Your task to perform on an android device: turn pop-ups off in chrome Image 0: 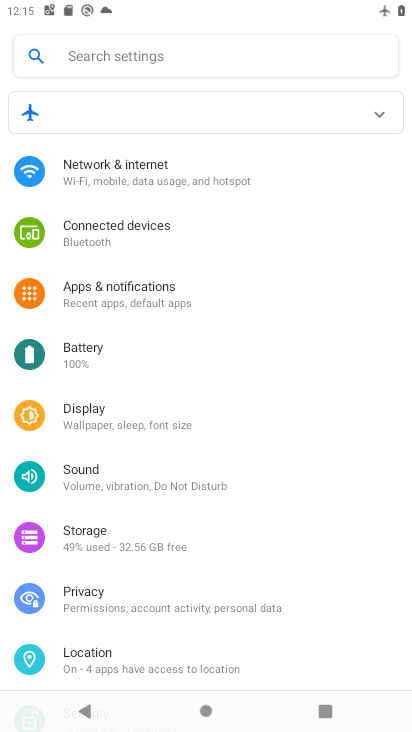
Step 0: press home button
Your task to perform on an android device: turn pop-ups off in chrome Image 1: 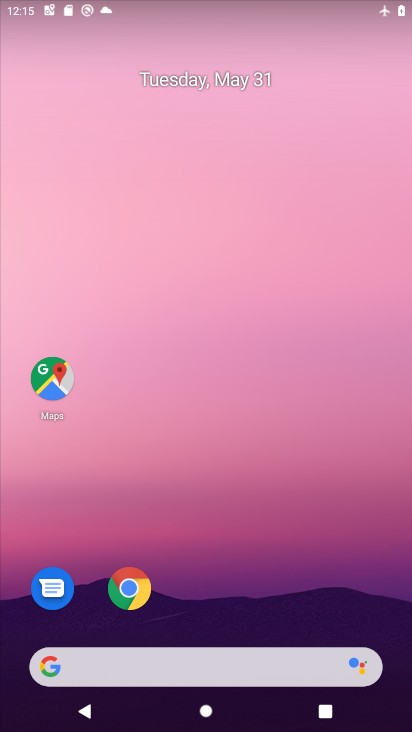
Step 1: drag from (213, 487) to (215, 114)
Your task to perform on an android device: turn pop-ups off in chrome Image 2: 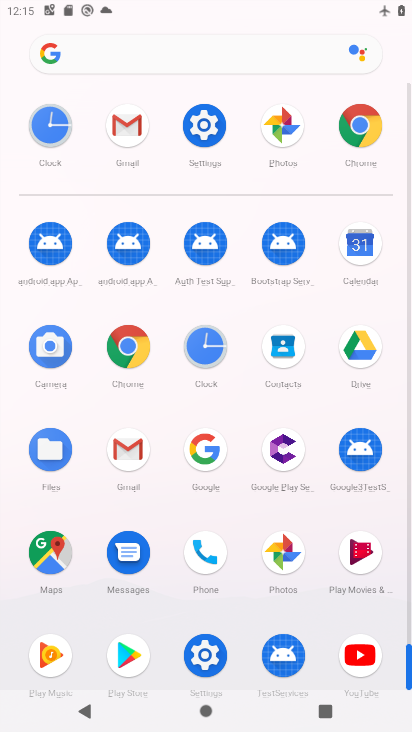
Step 2: click (157, 349)
Your task to perform on an android device: turn pop-ups off in chrome Image 3: 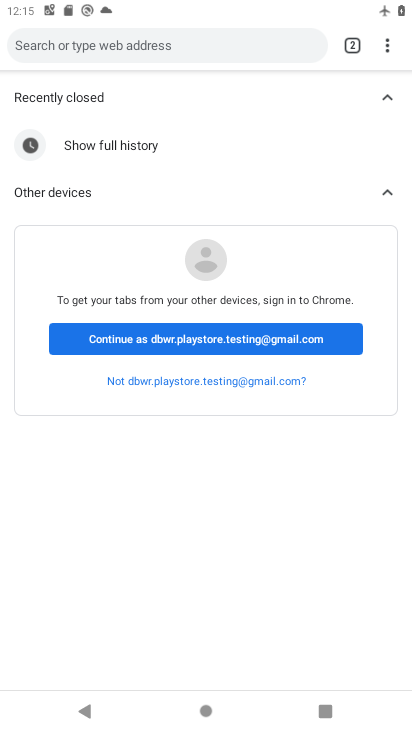
Step 3: drag from (385, 36) to (232, 388)
Your task to perform on an android device: turn pop-ups off in chrome Image 4: 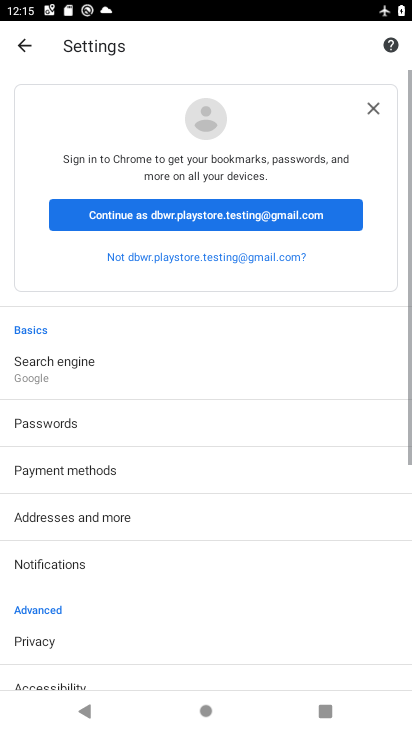
Step 4: drag from (165, 411) to (129, 647)
Your task to perform on an android device: turn pop-ups off in chrome Image 5: 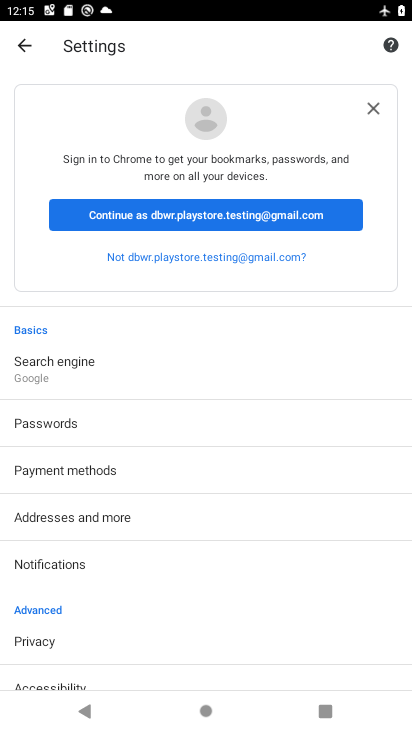
Step 5: drag from (119, 714) to (134, 413)
Your task to perform on an android device: turn pop-ups off in chrome Image 6: 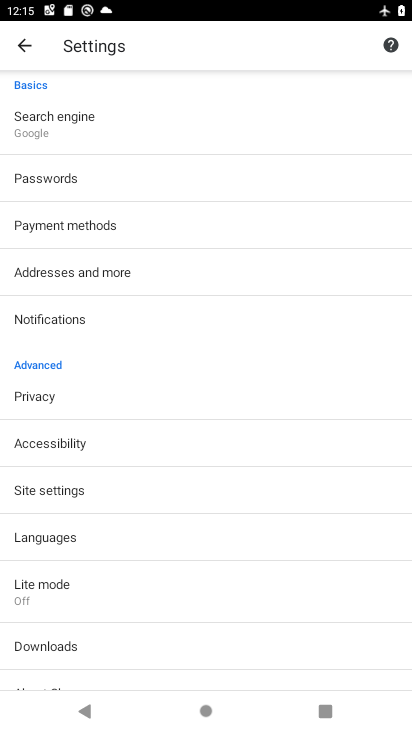
Step 6: drag from (103, 557) to (110, 463)
Your task to perform on an android device: turn pop-ups off in chrome Image 7: 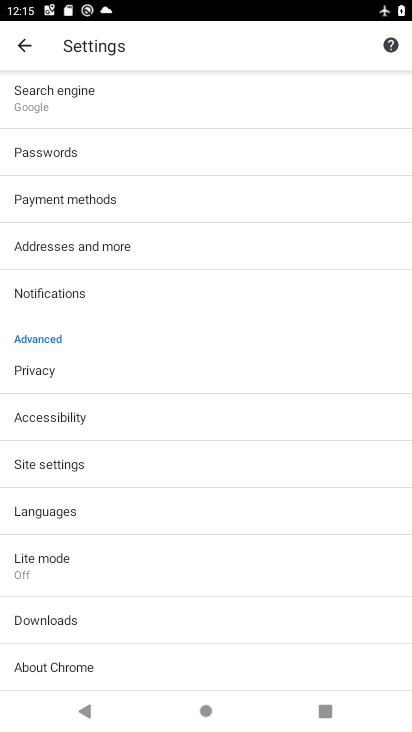
Step 7: click (111, 463)
Your task to perform on an android device: turn pop-ups off in chrome Image 8: 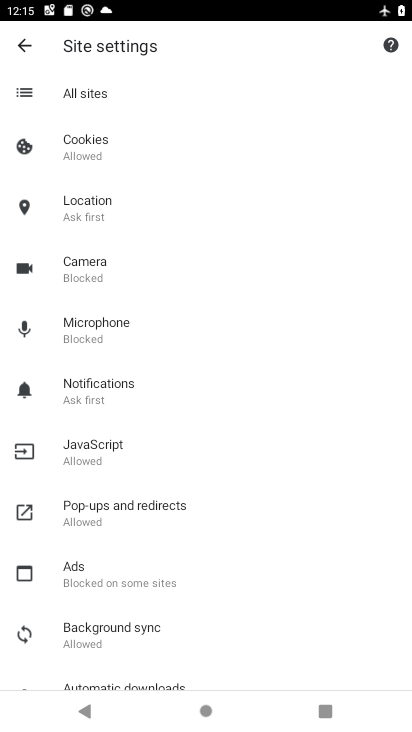
Step 8: press home button
Your task to perform on an android device: turn pop-ups off in chrome Image 9: 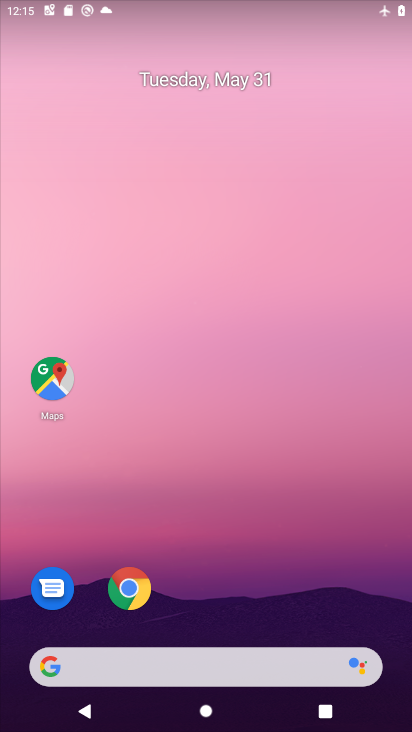
Step 9: drag from (277, 652) to (350, 153)
Your task to perform on an android device: turn pop-ups off in chrome Image 10: 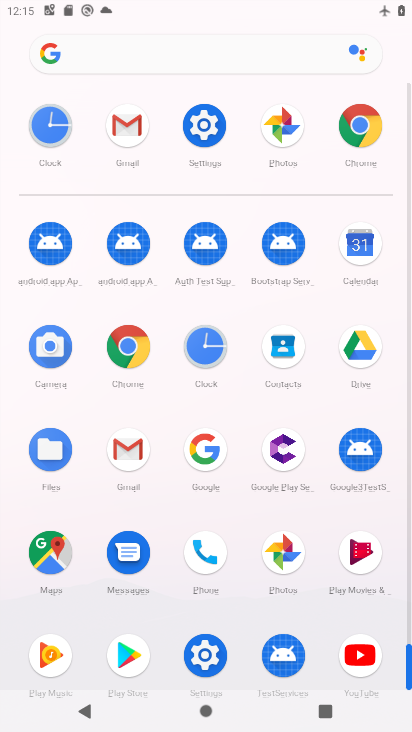
Step 10: click (143, 347)
Your task to perform on an android device: turn pop-ups off in chrome Image 11: 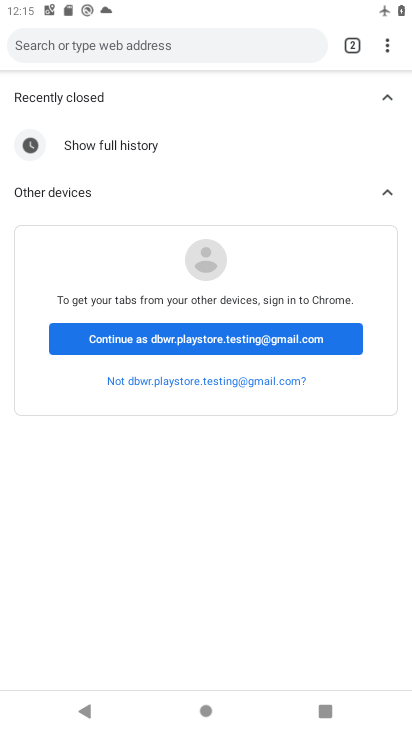
Step 11: click (402, 100)
Your task to perform on an android device: turn pop-ups off in chrome Image 12: 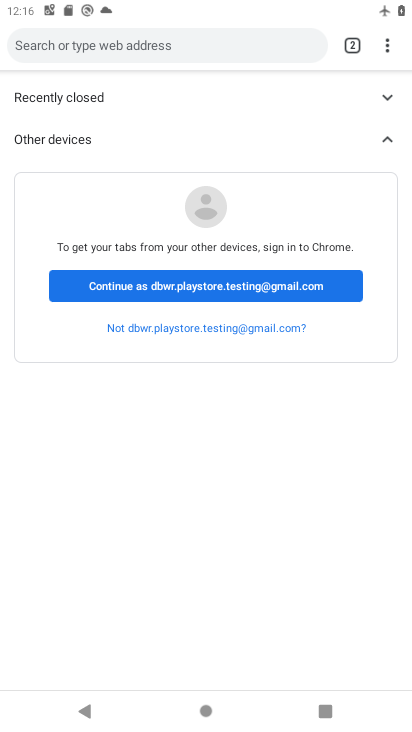
Step 12: click (386, 130)
Your task to perform on an android device: turn pop-ups off in chrome Image 13: 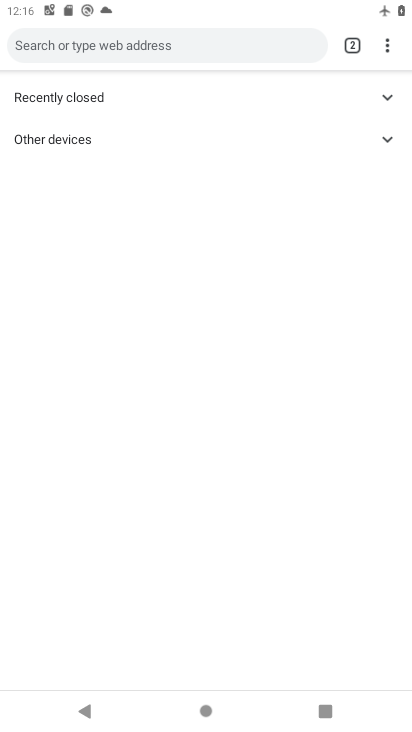
Step 13: press home button
Your task to perform on an android device: turn pop-ups off in chrome Image 14: 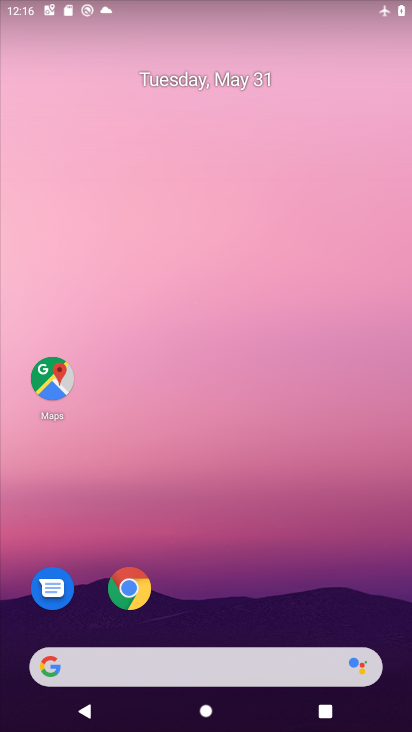
Step 14: drag from (267, 705) to (286, 337)
Your task to perform on an android device: turn pop-ups off in chrome Image 15: 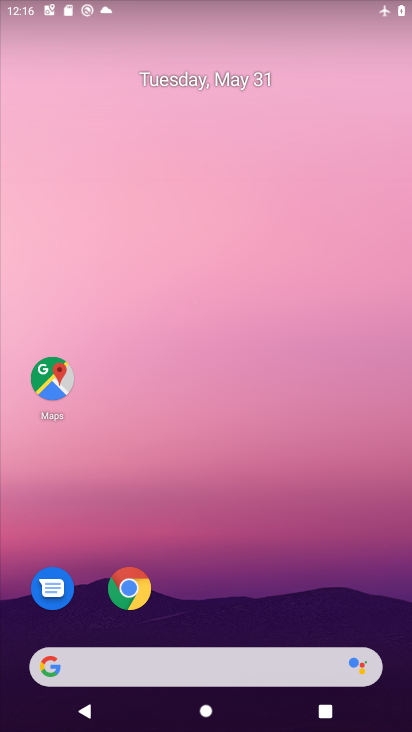
Step 15: drag from (241, 681) to (251, 75)
Your task to perform on an android device: turn pop-ups off in chrome Image 16: 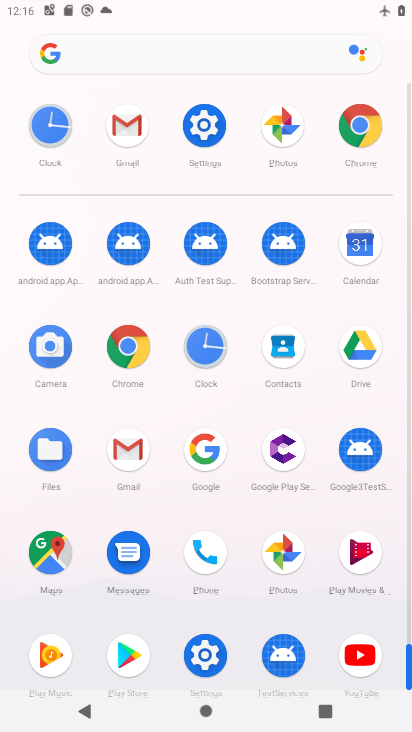
Step 16: click (138, 354)
Your task to perform on an android device: turn pop-ups off in chrome Image 17: 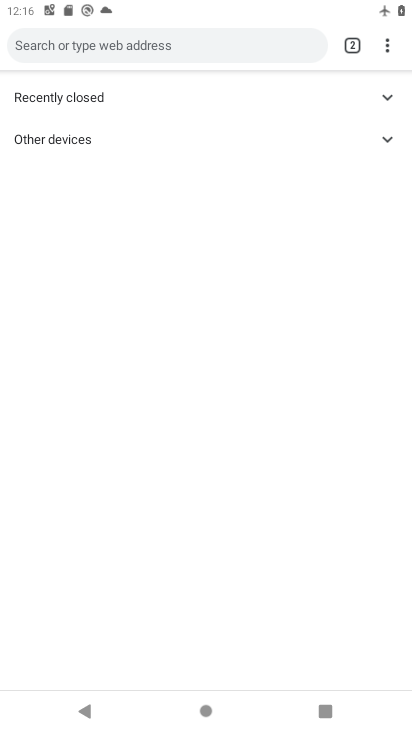
Step 17: click (385, 41)
Your task to perform on an android device: turn pop-ups off in chrome Image 18: 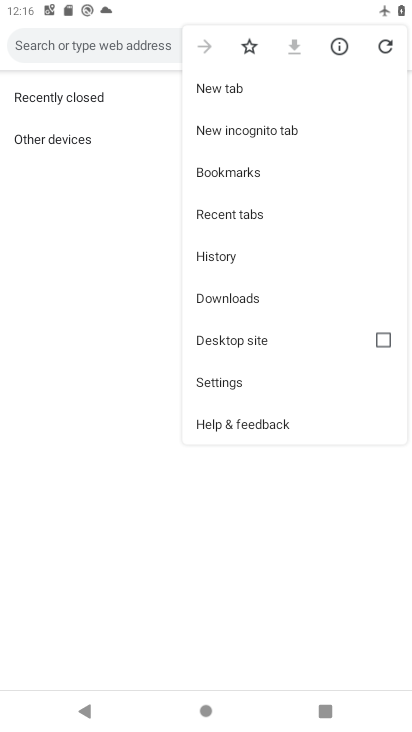
Step 18: click (231, 382)
Your task to perform on an android device: turn pop-ups off in chrome Image 19: 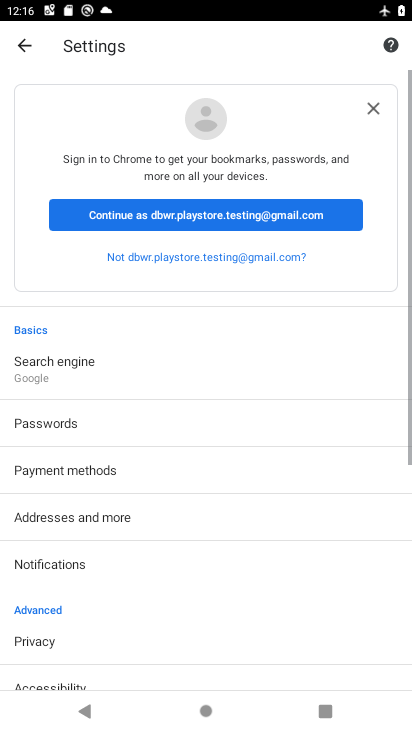
Step 19: drag from (192, 633) to (184, 224)
Your task to perform on an android device: turn pop-ups off in chrome Image 20: 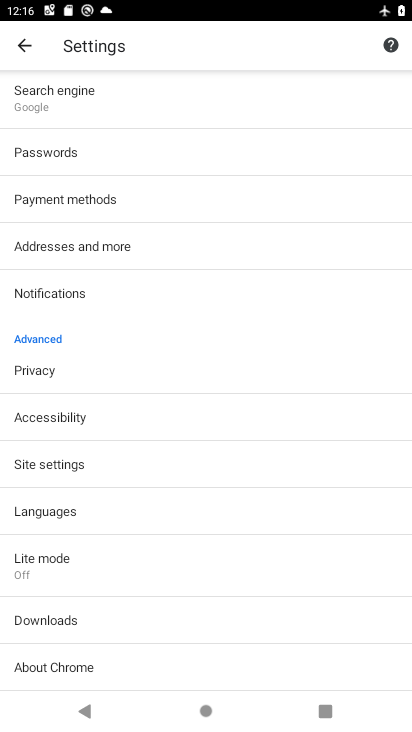
Step 20: click (67, 474)
Your task to perform on an android device: turn pop-ups off in chrome Image 21: 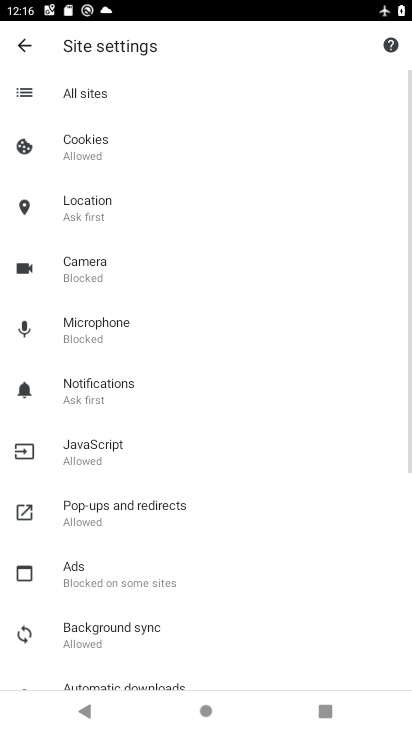
Step 21: click (123, 499)
Your task to perform on an android device: turn pop-ups off in chrome Image 22: 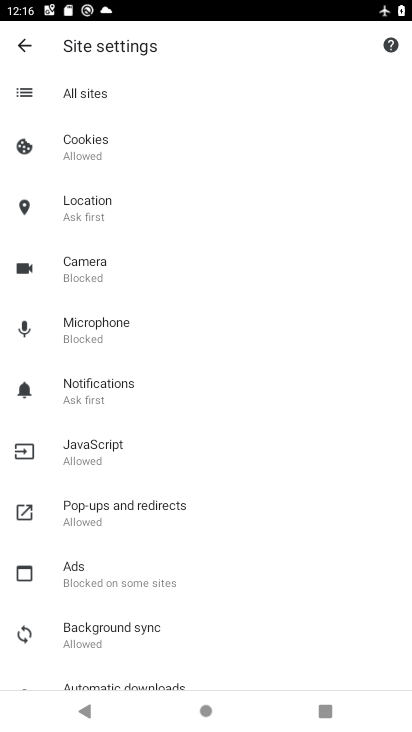
Step 22: click (222, 519)
Your task to perform on an android device: turn pop-ups off in chrome Image 23: 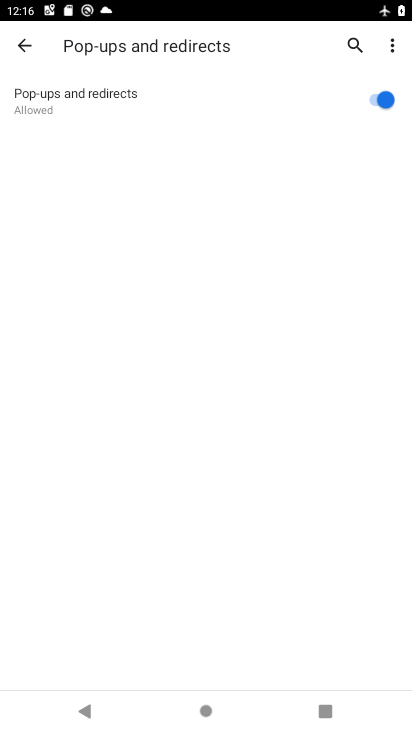
Step 23: click (387, 94)
Your task to perform on an android device: turn pop-ups off in chrome Image 24: 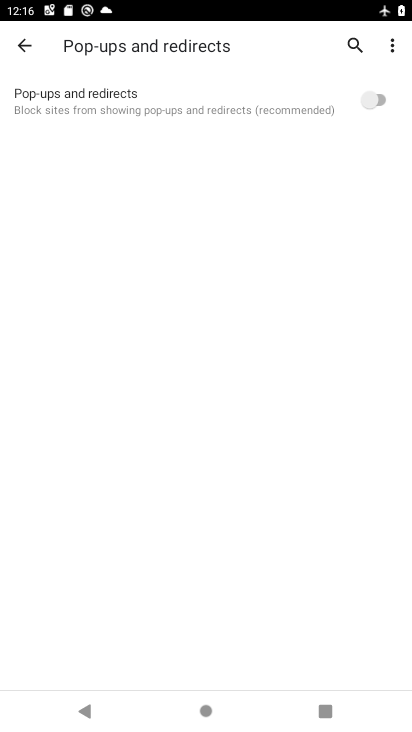
Step 24: task complete